Your task to perform on an android device: Play the last video I watched on Youtube Image 0: 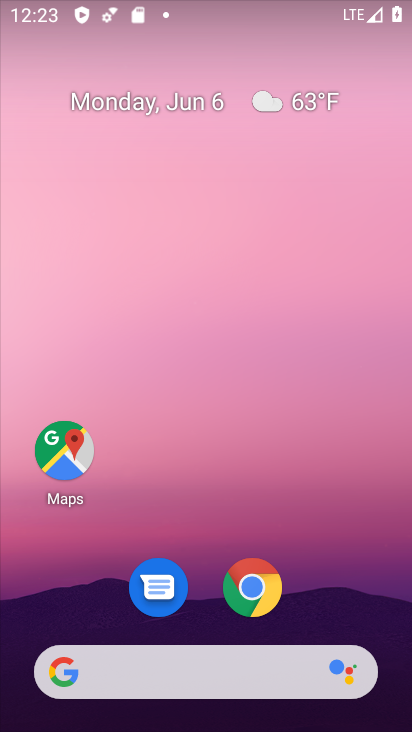
Step 0: drag from (390, 633) to (291, 56)
Your task to perform on an android device: Play the last video I watched on Youtube Image 1: 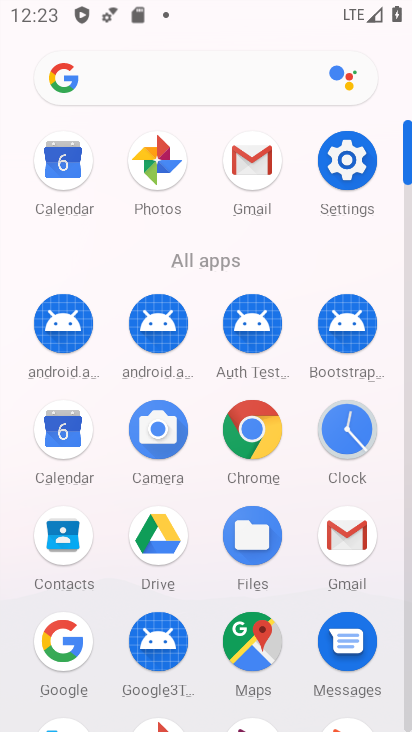
Step 1: click (409, 721)
Your task to perform on an android device: Play the last video I watched on Youtube Image 2: 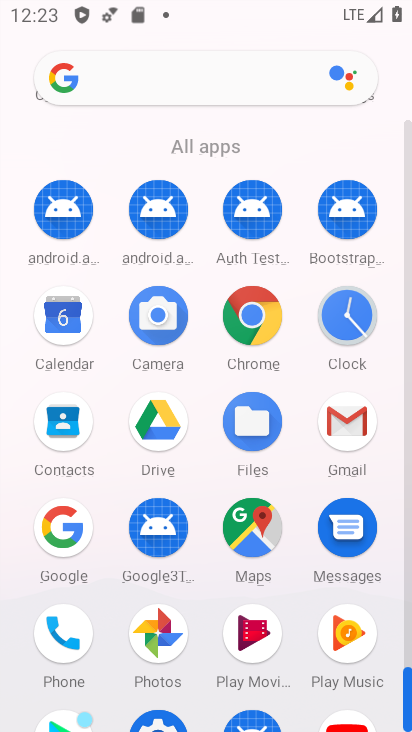
Step 2: click (354, 720)
Your task to perform on an android device: Play the last video I watched on Youtube Image 3: 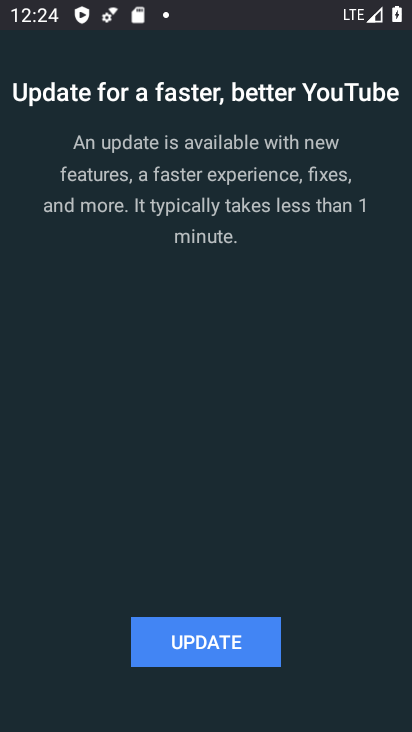
Step 3: click (256, 627)
Your task to perform on an android device: Play the last video I watched on Youtube Image 4: 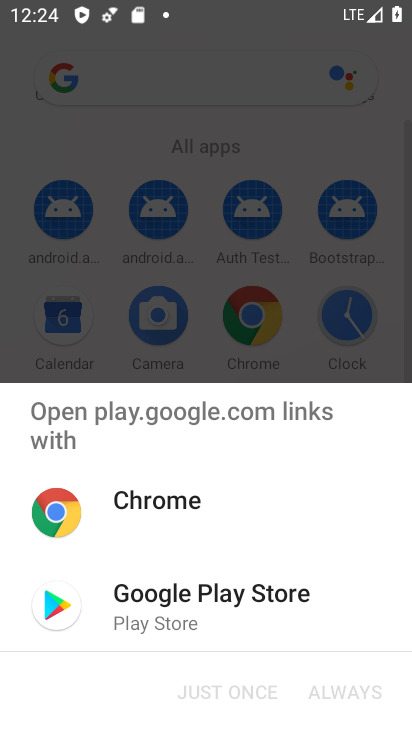
Step 4: click (281, 609)
Your task to perform on an android device: Play the last video I watched on Youtube Image 5: 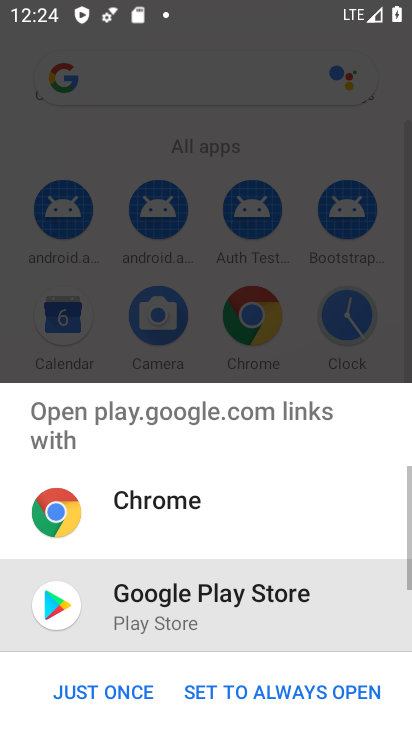
Step 5: click (115, 702)
Your task to perform on an android device: Play the last video I watched on Youtube Image 6: 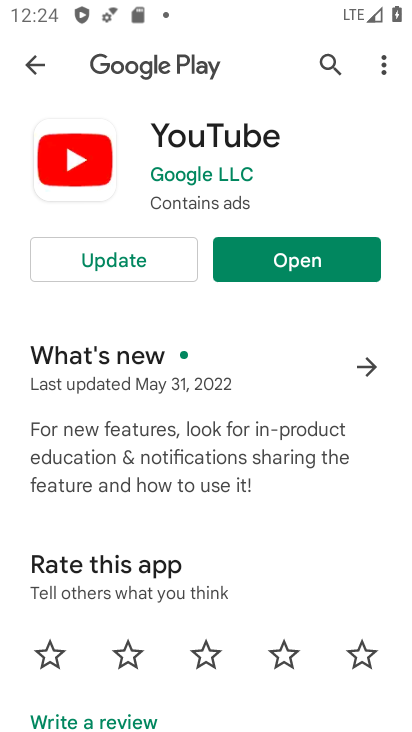
Step 6: click (132, 272)
Your task to perform on an android device: Play the last video I watched on Youtube Image 7: 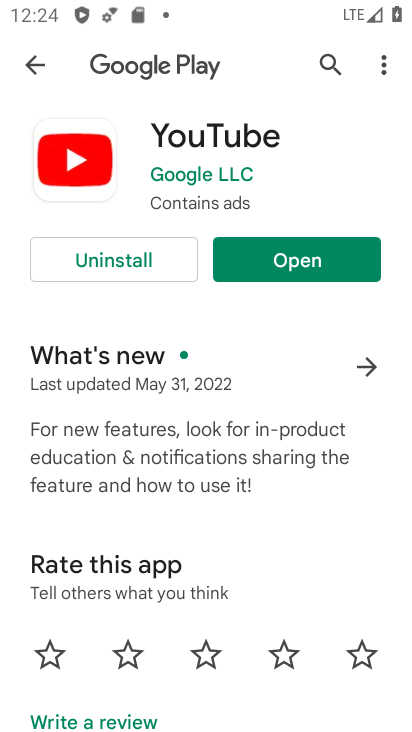
Step 7: click (281, 265)
Your task to perform on an android device: Play the last video I watched on Youtube Image 8: 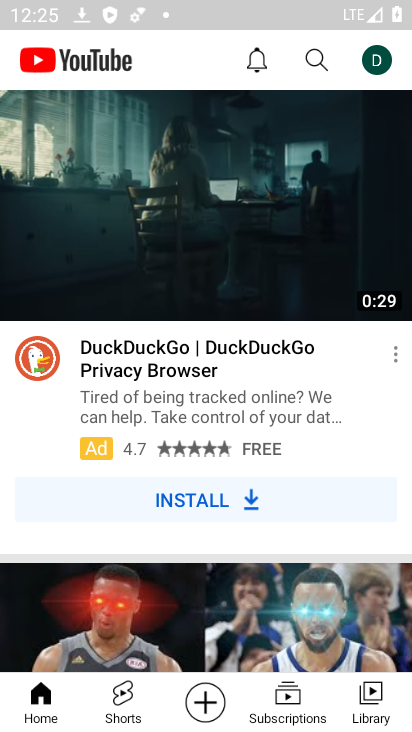
Step 8: click (376, 707)
Your task to perform on an android device: Play the last video I watched on Youtube Image 9: 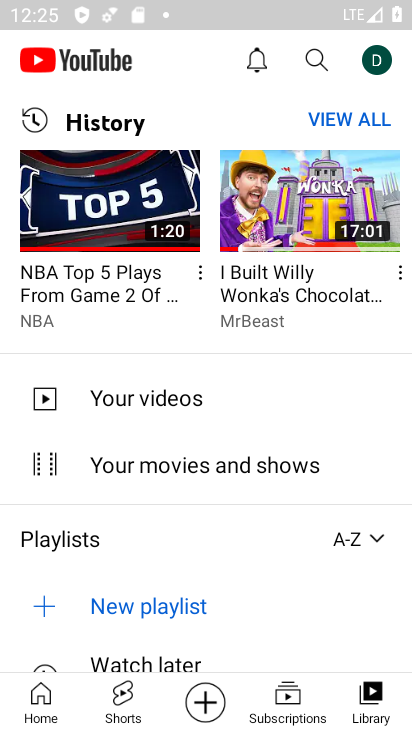
Step 9: click (98, 210)
Your task to perform on an android device: Play the last video I watched on Youtube Image 10: 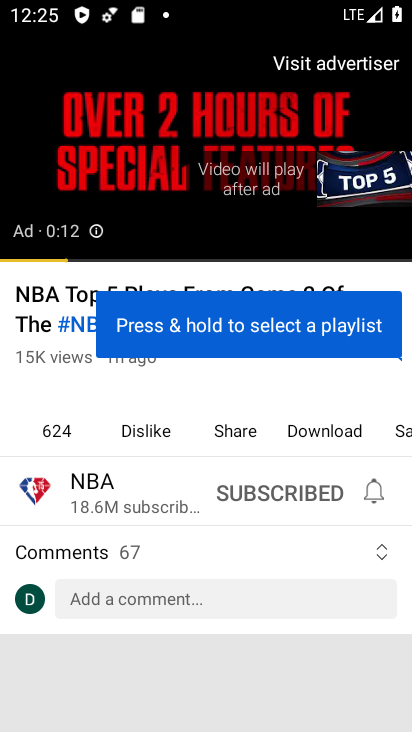
Step 10: task complete